Your task to perform on an android device: change your default location settings in chrome Image 0: 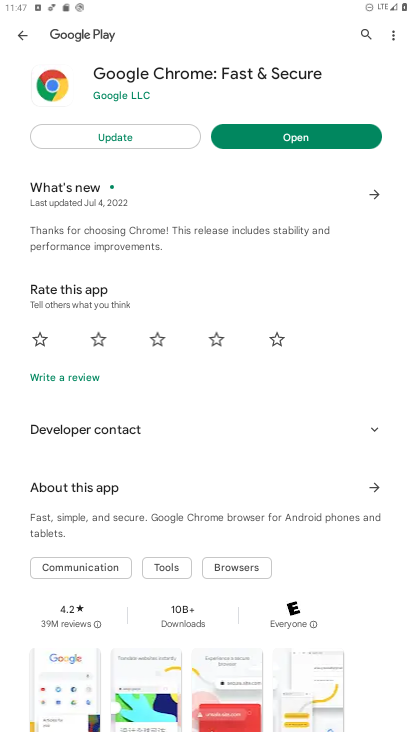
Step 0: click (366, 138)
Your task to perform on an android device: change your default location settings in chrome Image 1: 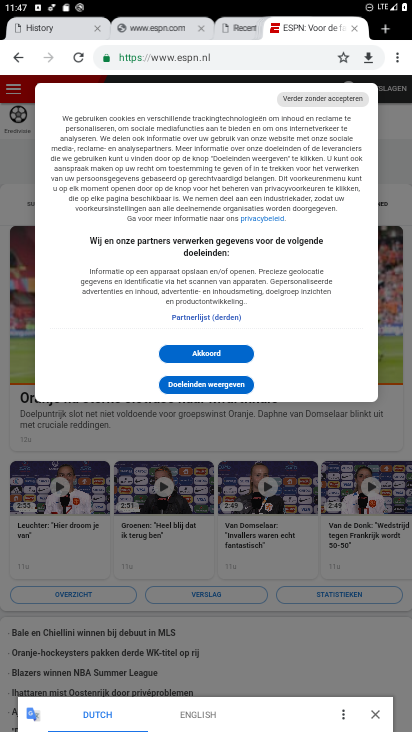
Step 1: click (402, 59)
Your task to perform on an android device: change your default location settings in chrome Image 2: 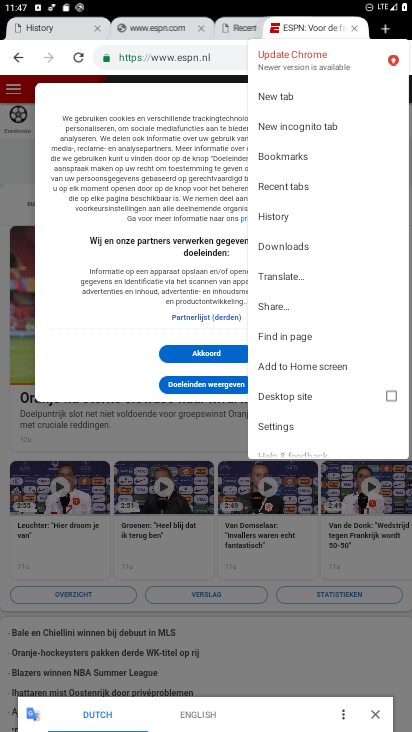
Step 2: click (282, 424)
Your task to perform on an android device: change your default location settings in chrome Image 3: 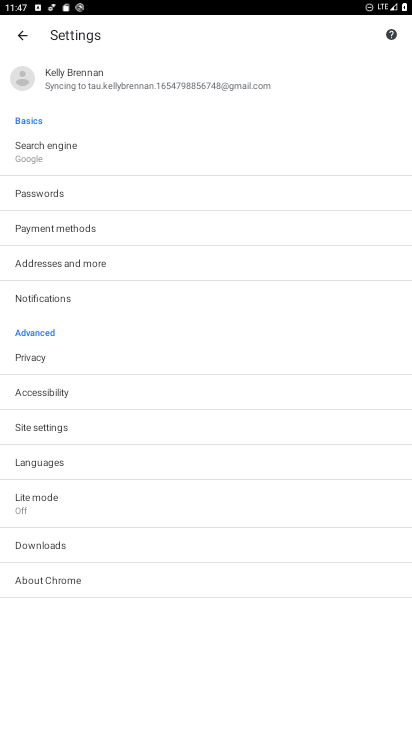
Step 3: click (48, 424)
Your task to perform on an android device: change your default location settings in chrome Image 4: 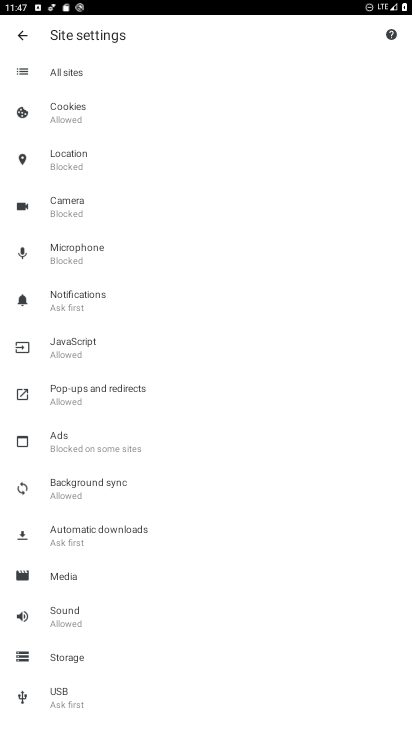
Step 4: click (76, 162)
Your task to perform on an android device: change your default location settings in chrome Image 5: 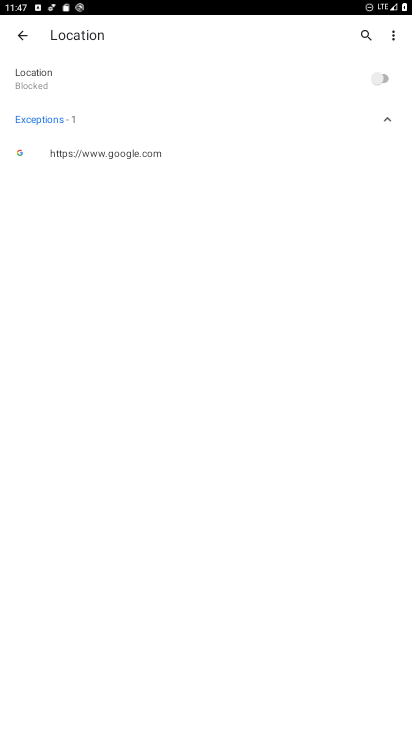
Step 5: click (377, 81)
Your task to perform on an android device: change your default location settings in chrome Image 6: 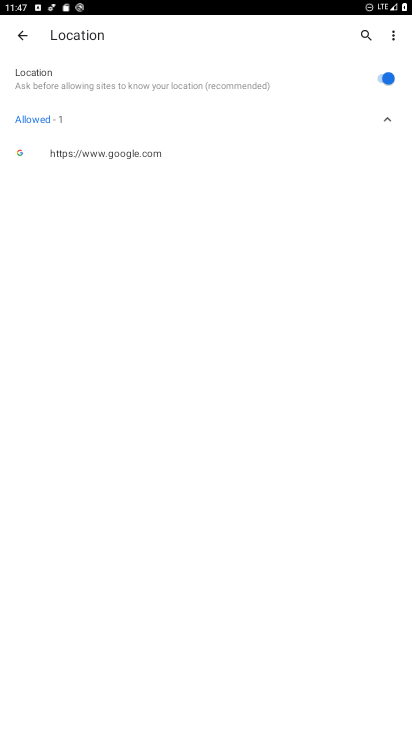
Step 6: task complete